Your task to perform on an android device: Go to Wikipedia Image 0: 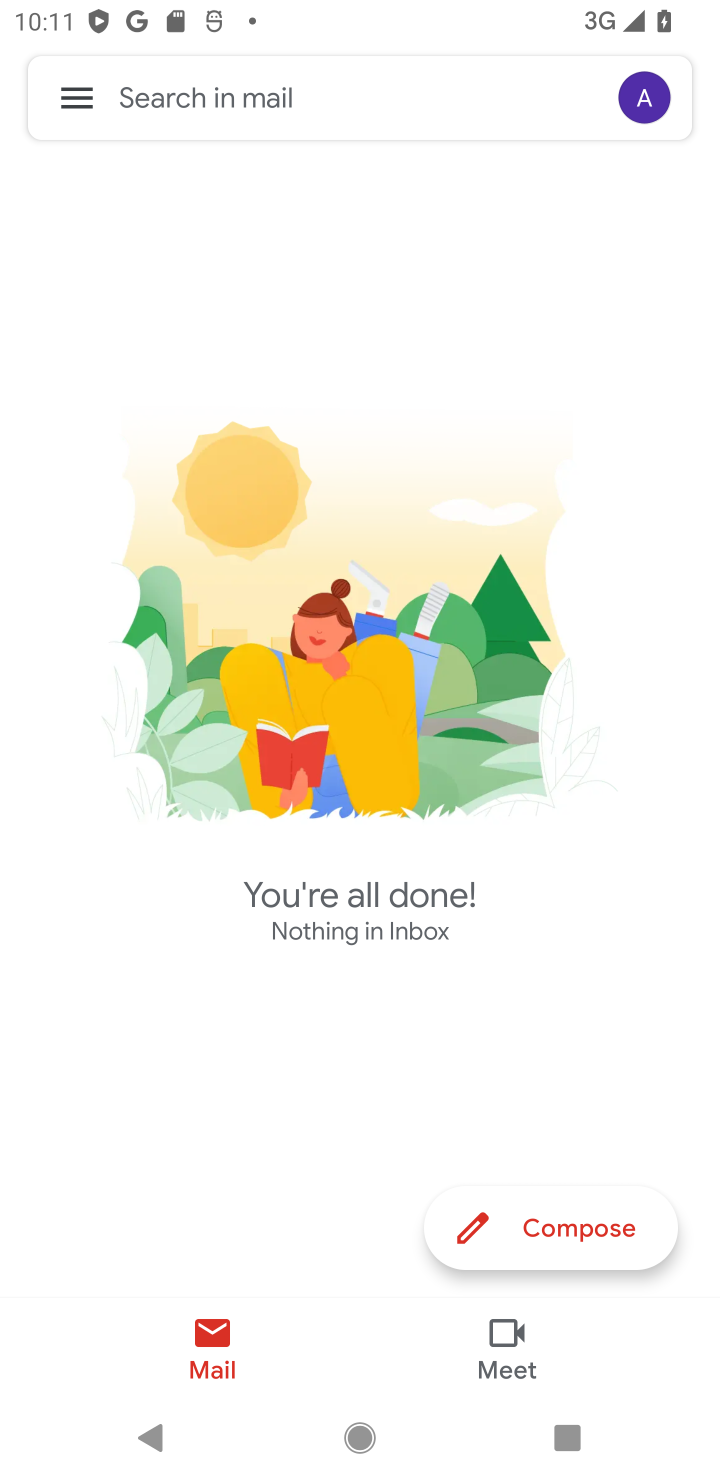
Step 0: press home button
Your task to perform on an android device: Go to Wikipedia Image 1: 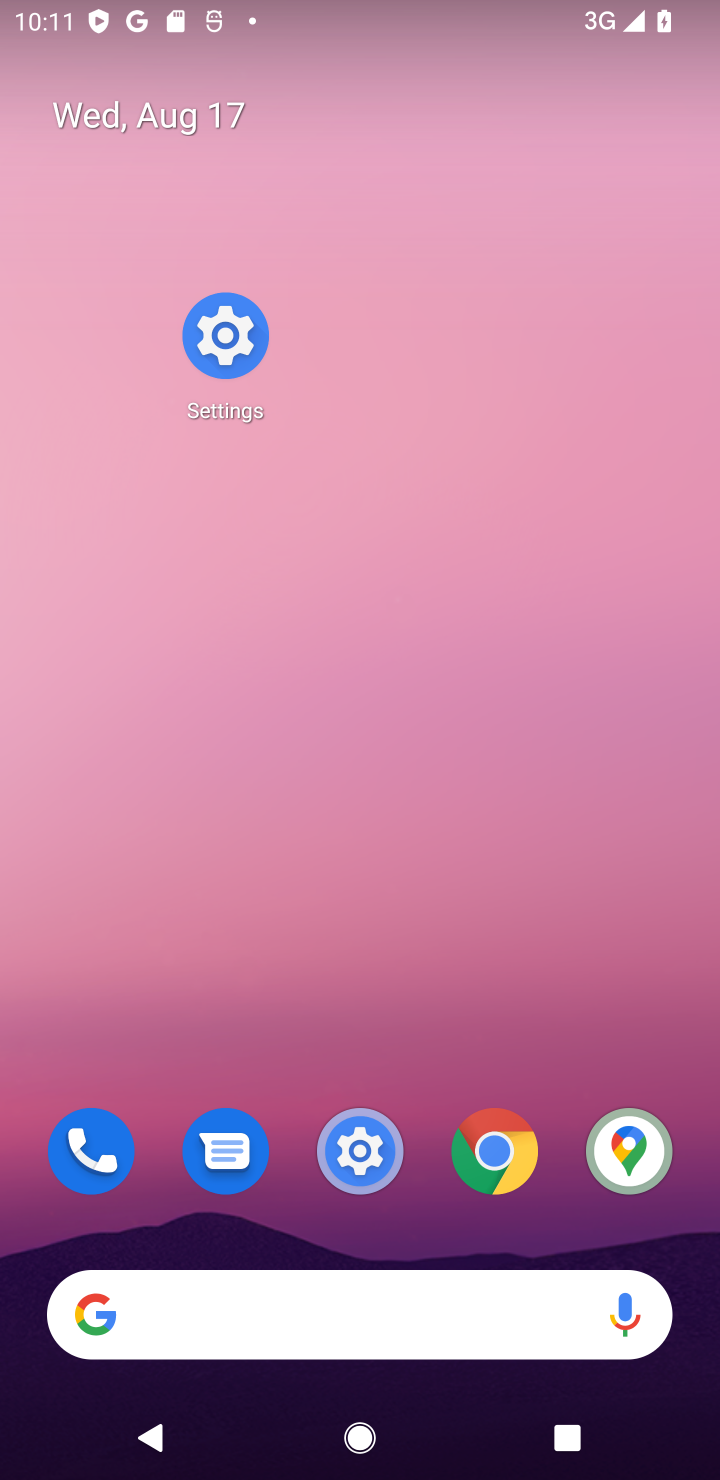
Step 1: click (496, 1155)
Your task to perform on an android device: Go to Wikipedia Image 2: 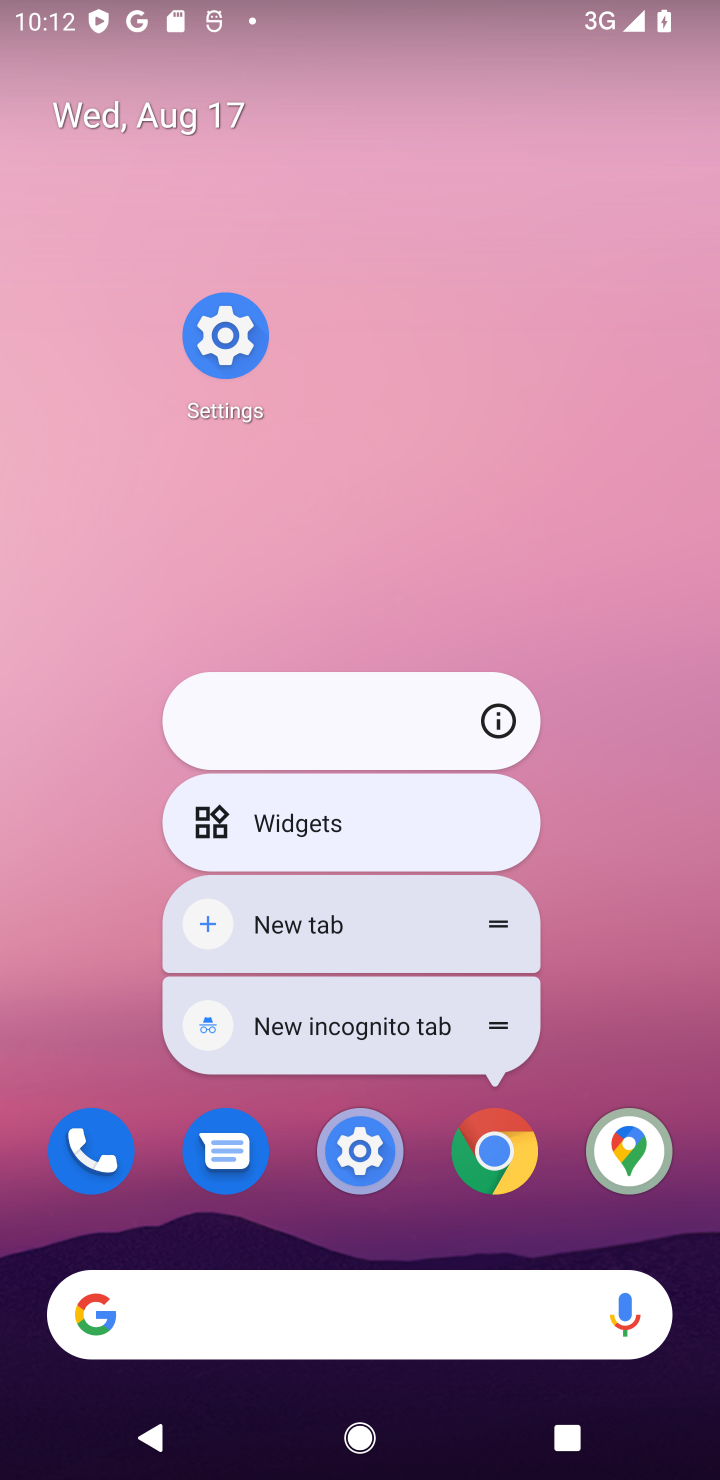
Step 2: click (496, 1155)
Your task to perform on an android device: Go to Wikipedia Image 3: 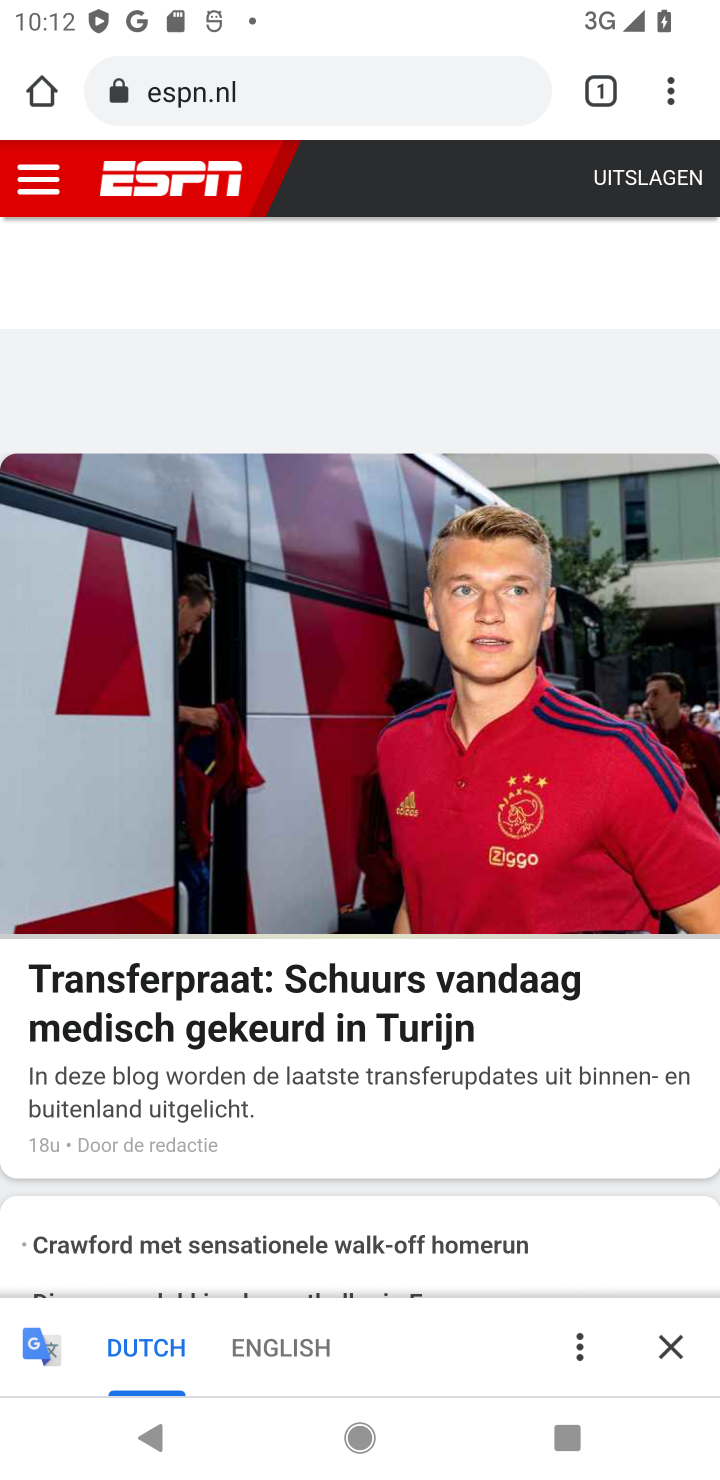
Step 3: press back button
Your task to perform on an android device: Go to Wikipedia Image 4: 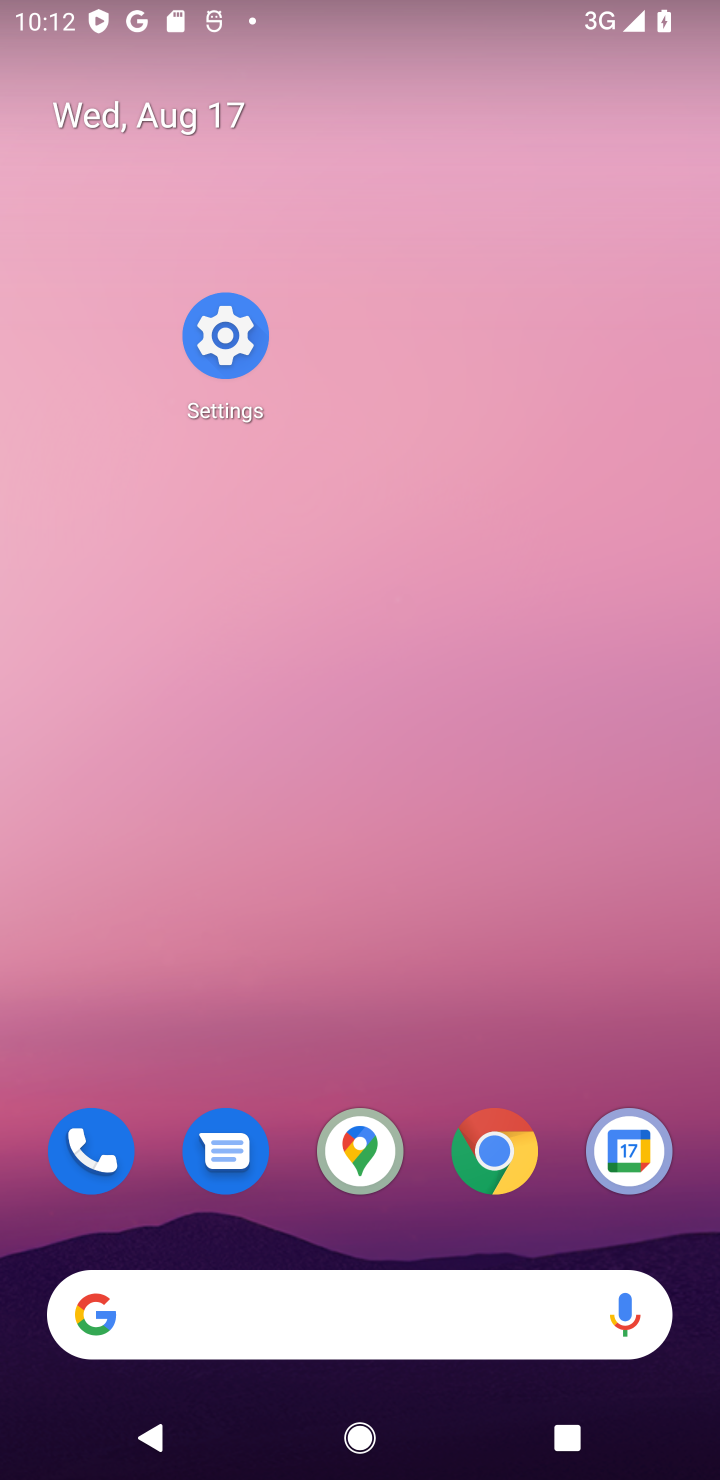
Step 4: click (515, 1170)
Your task to perform on an android device: Go to Wikipedia Image 5: 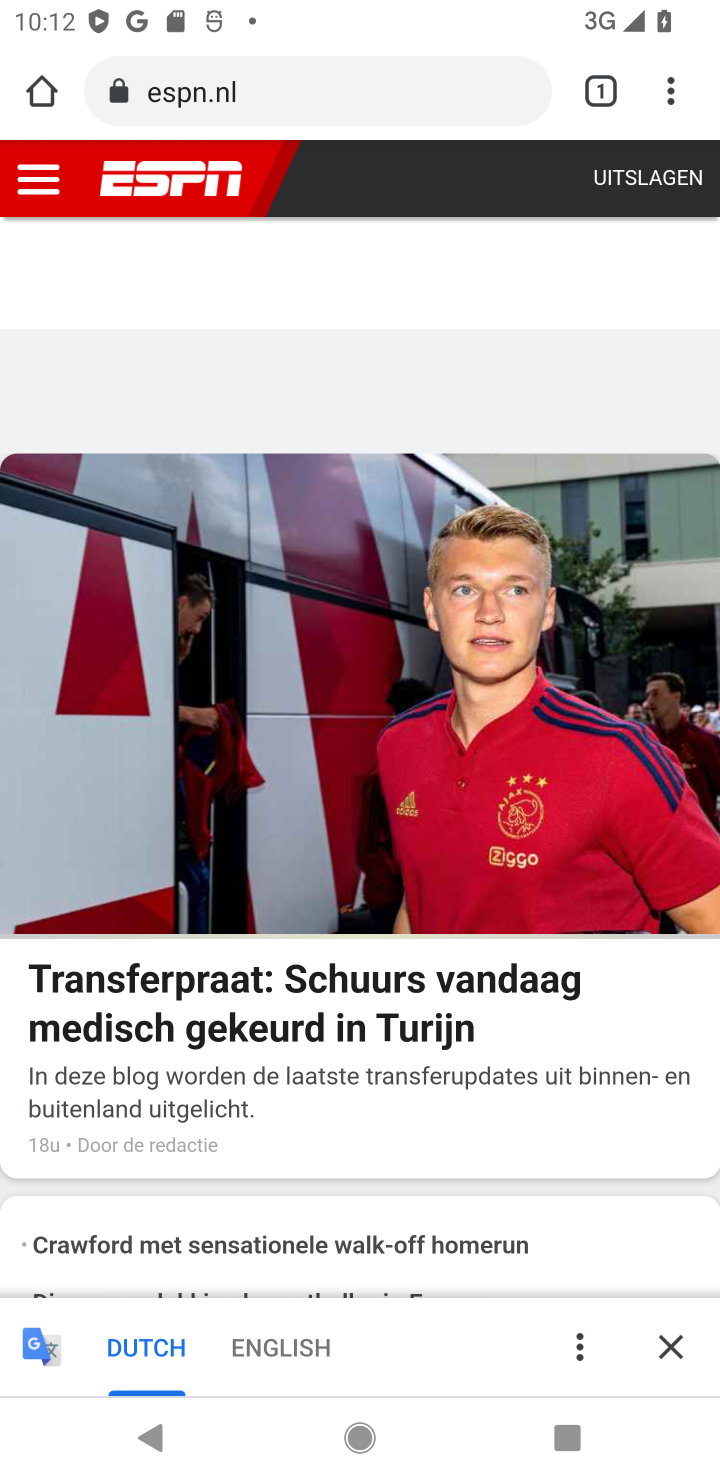
Step 5: click (190, 81)
Your task to perform on an android device: Go to Wikipedia Image 6: 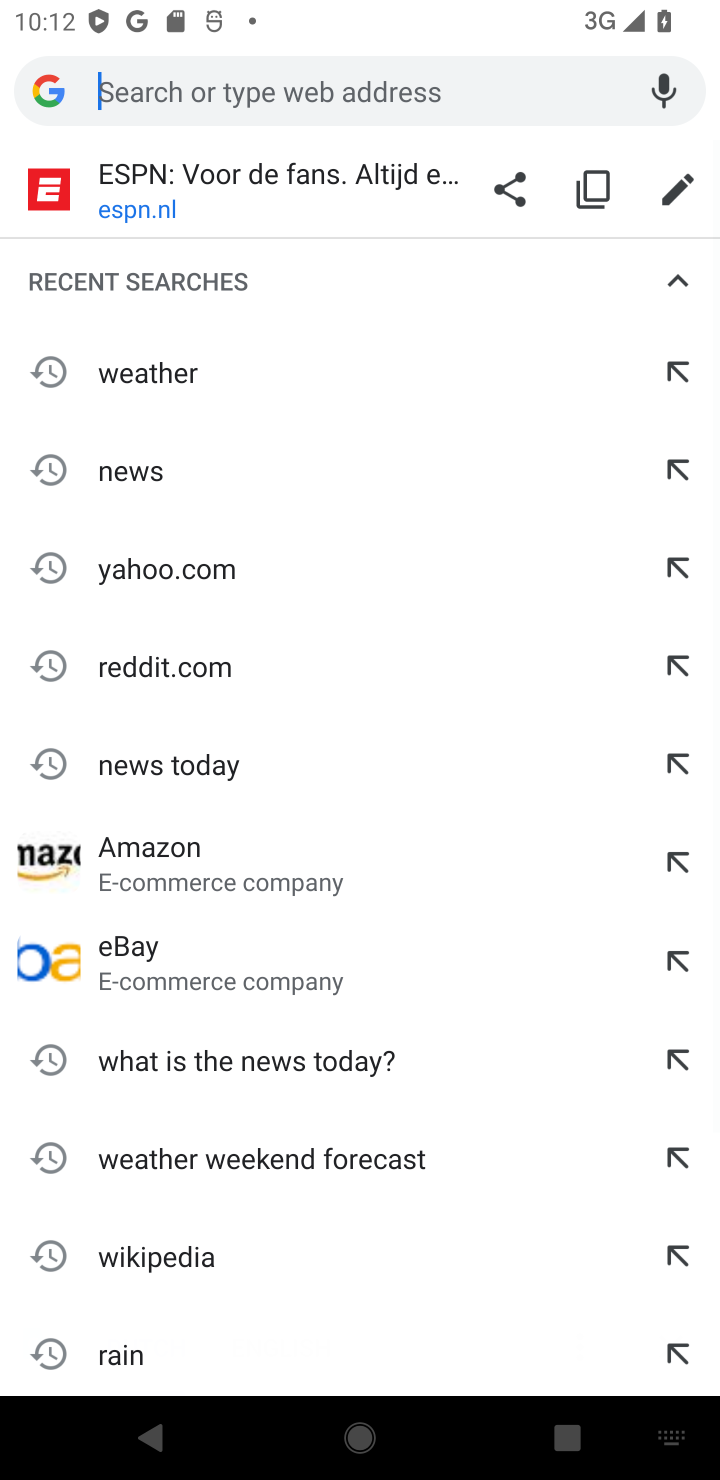
Step 6: type "Wikipedia"
Your task to perform on an android device: Go to Wikipedia Image 7: 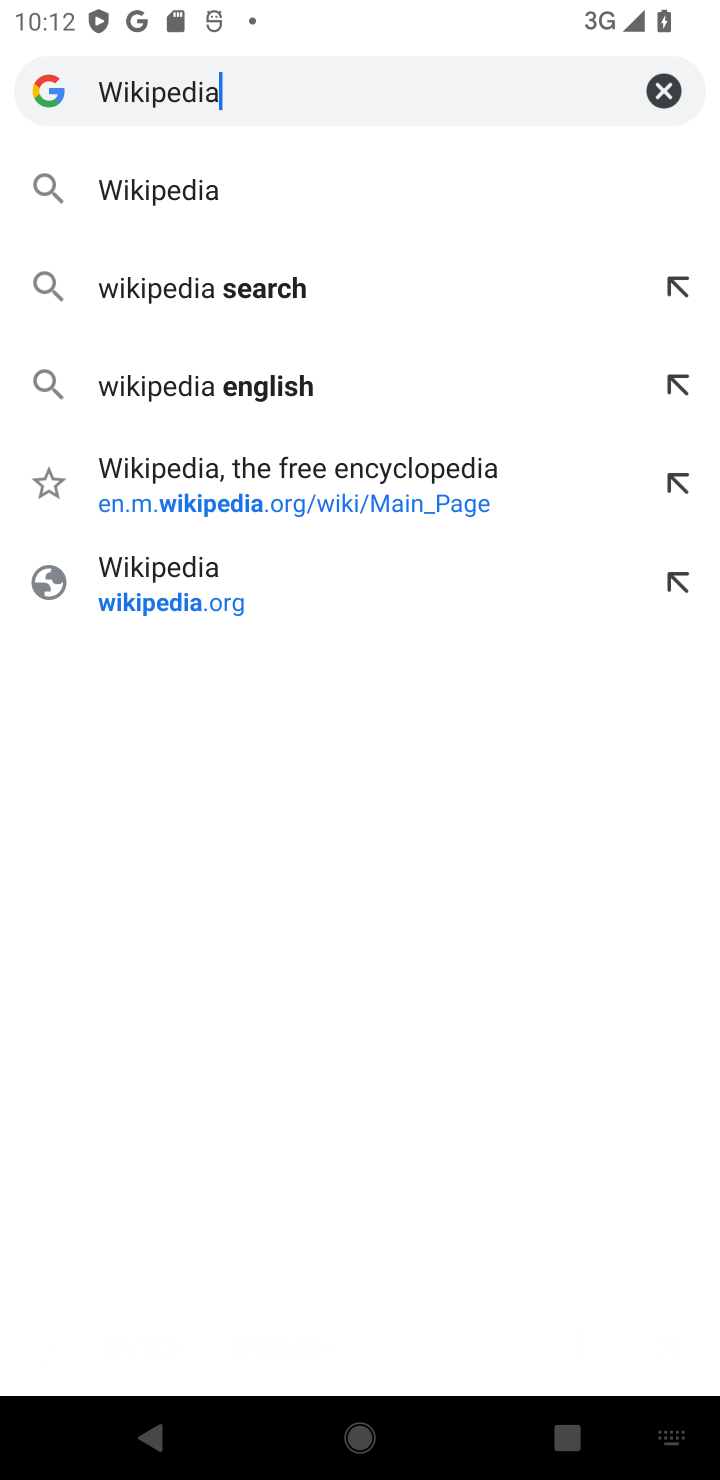
Step 7: click (180, 209)
Your task to perform on an android device: Go to Wikipedia Image 8: 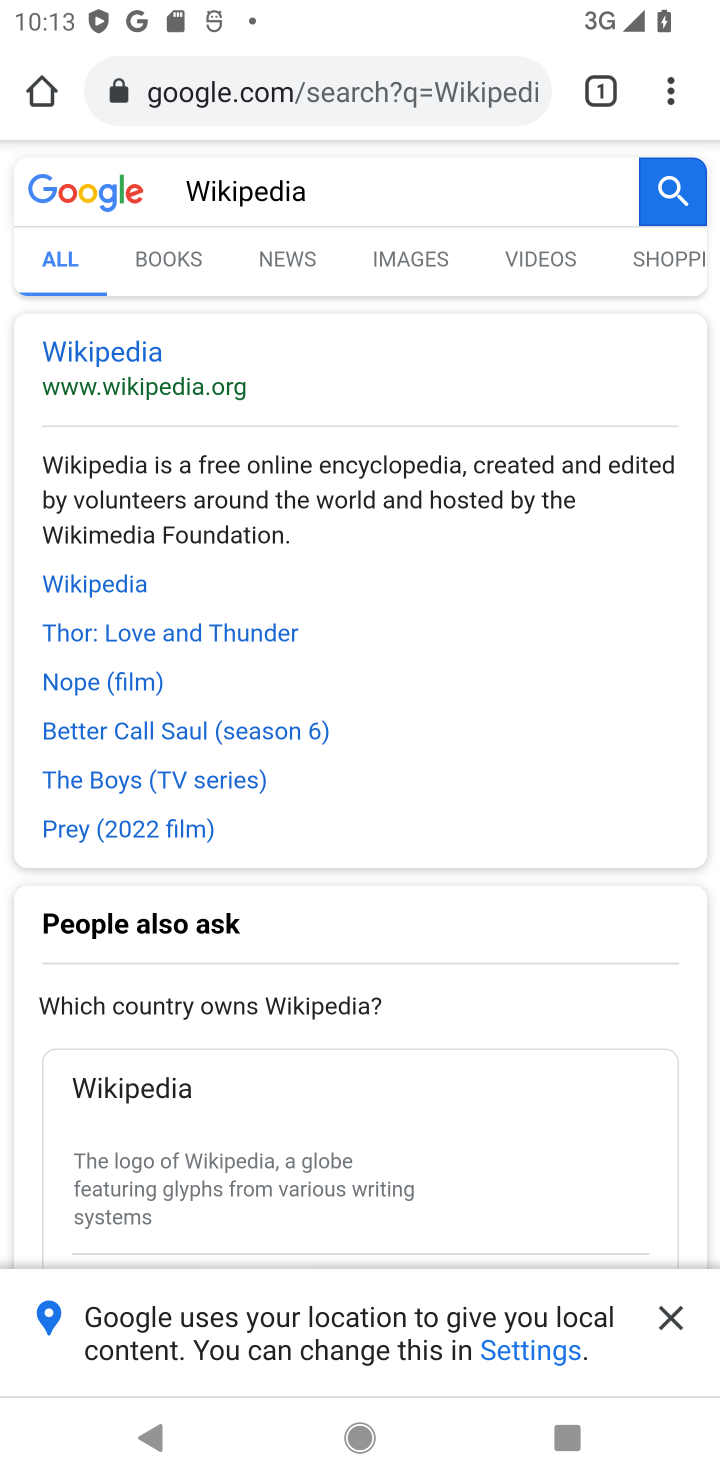
Step 8: click (170, 383)
Your task to perform on an android device: Go to Wikipedia Image 9: 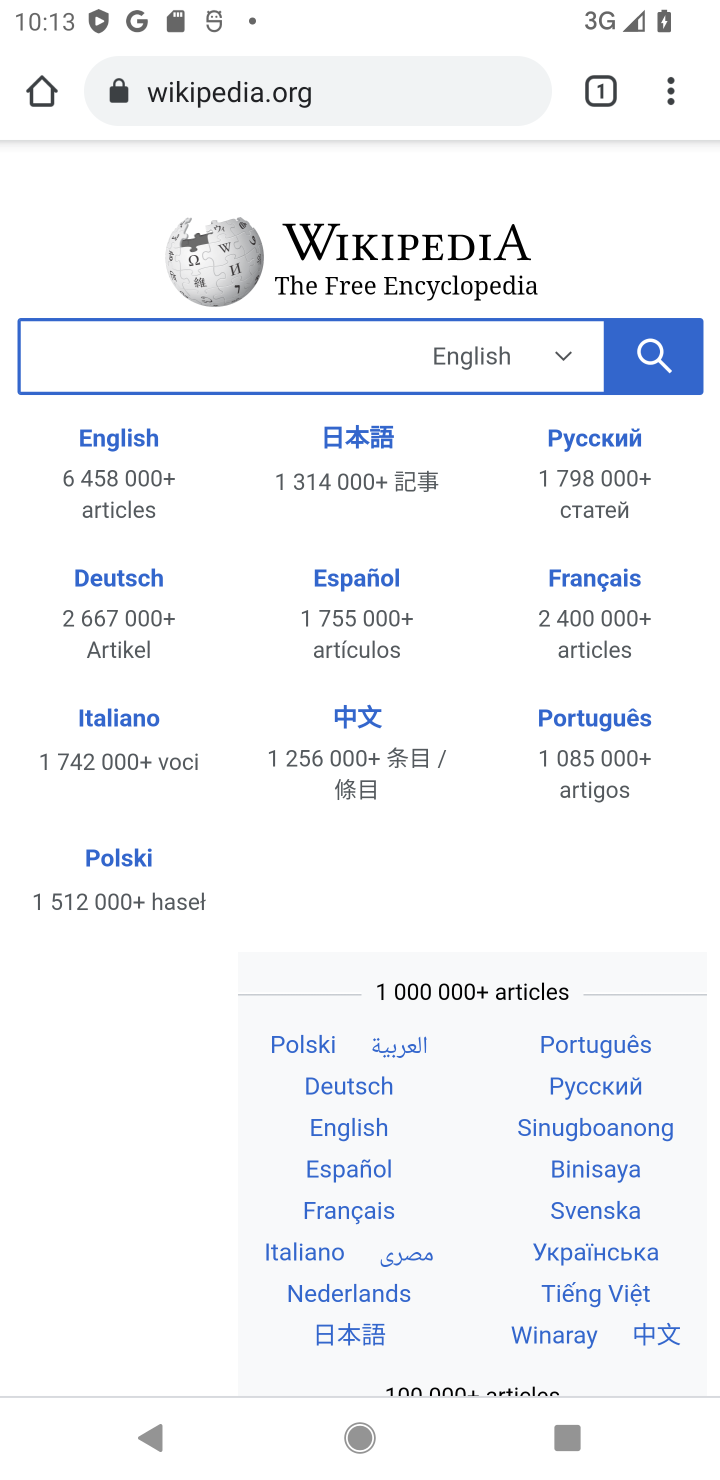
Step 9: task complete